Your task to perform on an android device: Do I have any events today? Image 0: 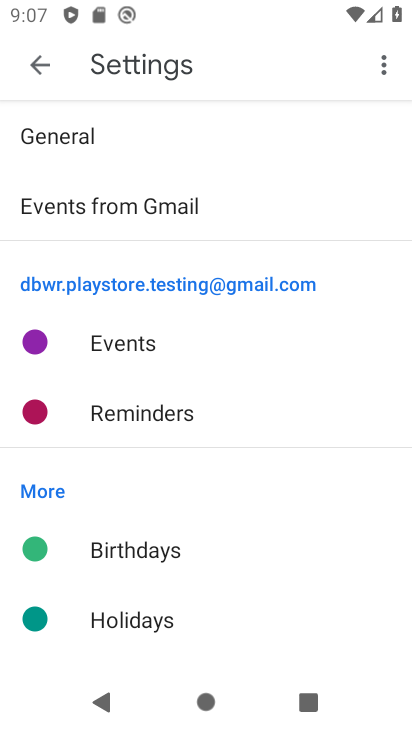
Step 0: press back button
Your task to perform on an android device: Do I have any events today? Image 1: 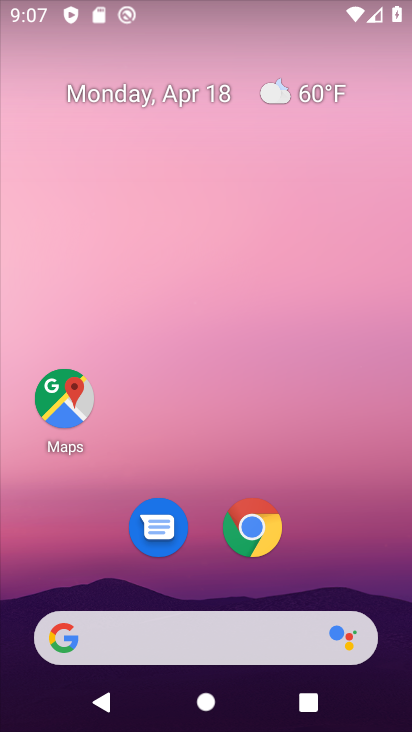
Step 1: drag from (174, 573) to (349, 38)
Your task to perform on an android device: Do I have any events today? Image 2: 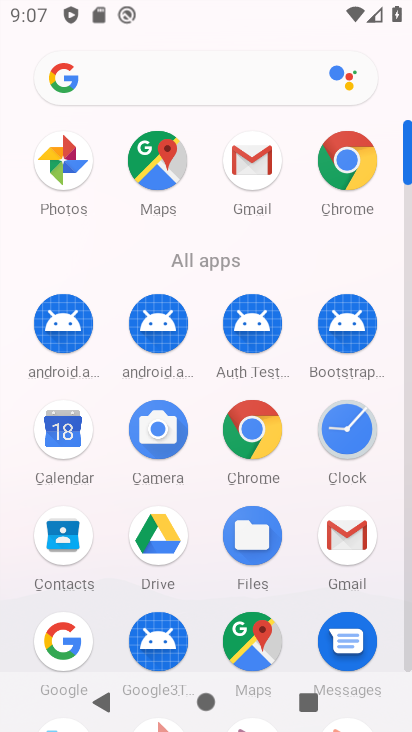
Step 2: click (63, 454)
Your task to perform on an android device: Do I have any events today? Image 3: 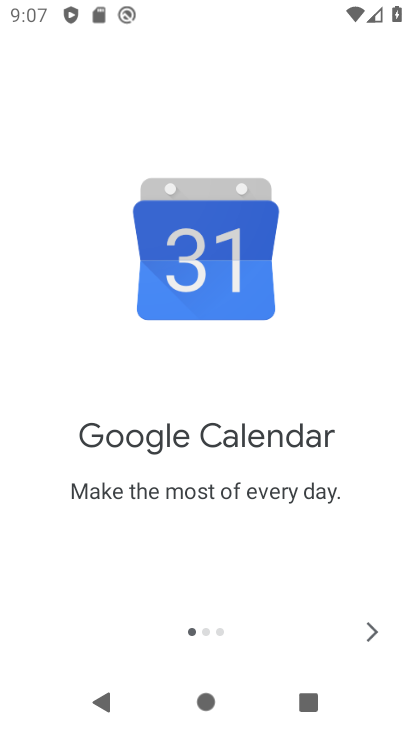
Step 3: click (362, 631)
Your task to perform on an android device: Do I have any events today? Image 4: 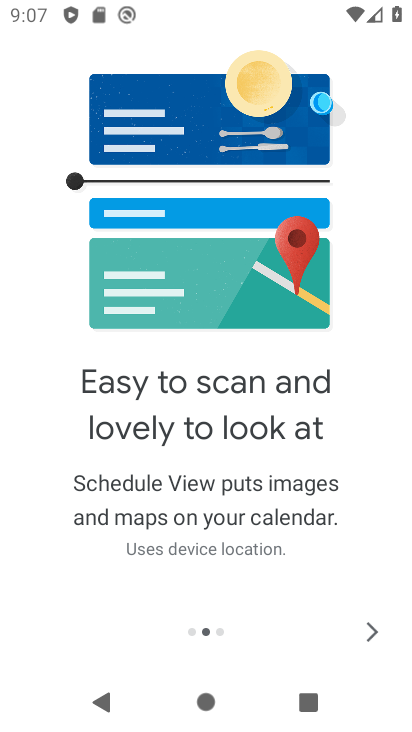
Step 4: click (375, 630)
Your task to perform on an android device: Do I have any events today? Image 5: 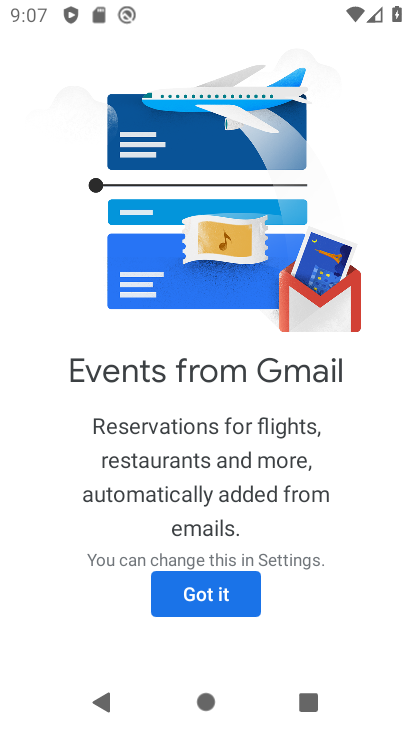
Step 5: click (219, 603)
Your task to perform on an android device: Do I have any events today? Image 6: 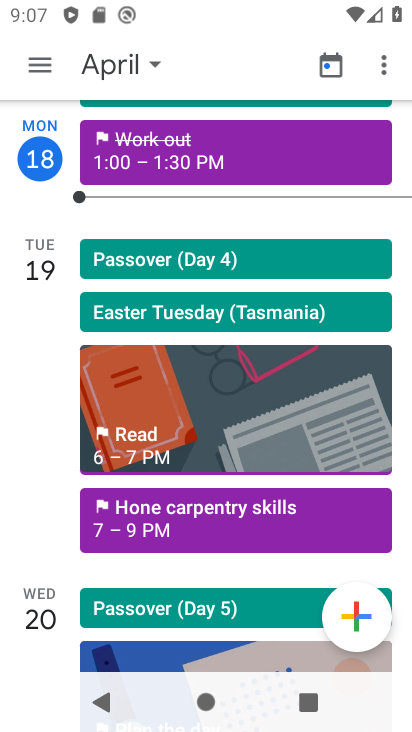
Step 6: drag from (189, 257) to (152, 402)
Your task to perform on an android device: Do I have any events today? Image 7: 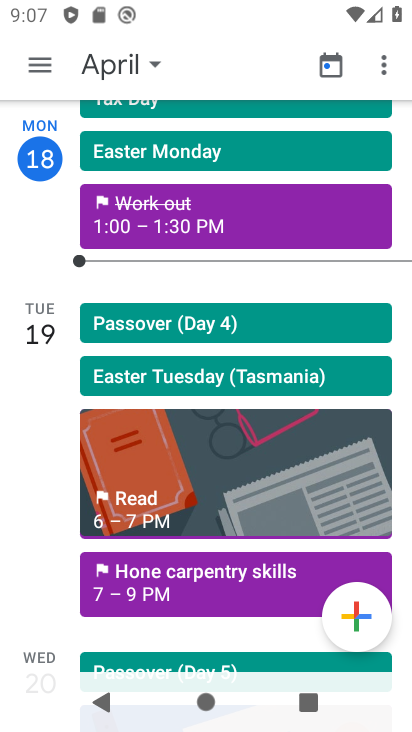
Step 7: click (40, 162)
Your task to perform on an android device: Do I have any events today? Image 8: 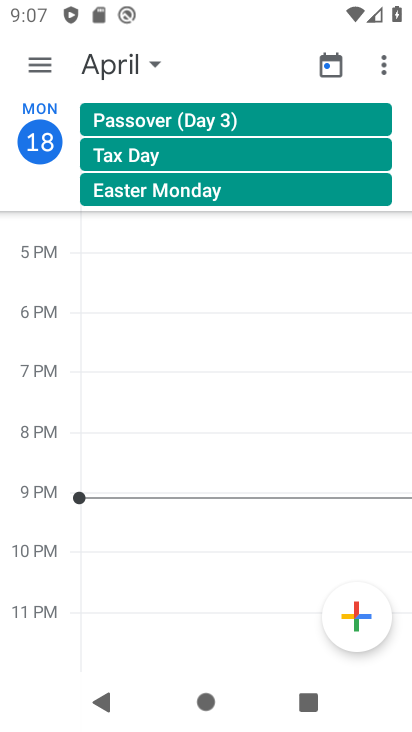
Step 8: task complete